Your task to perform on an android device: Is it going to rain this weekend? Image 0: 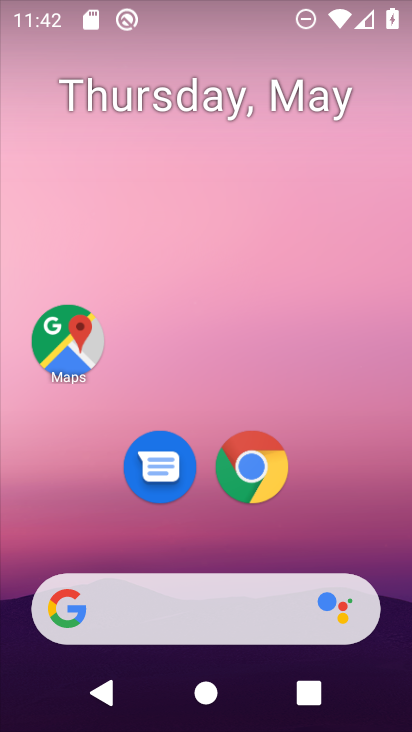
Step 0: drag from (238, 556) to (243, 196)
Your task to perform on an android device: Is it going to rain this weekend? Image 1: 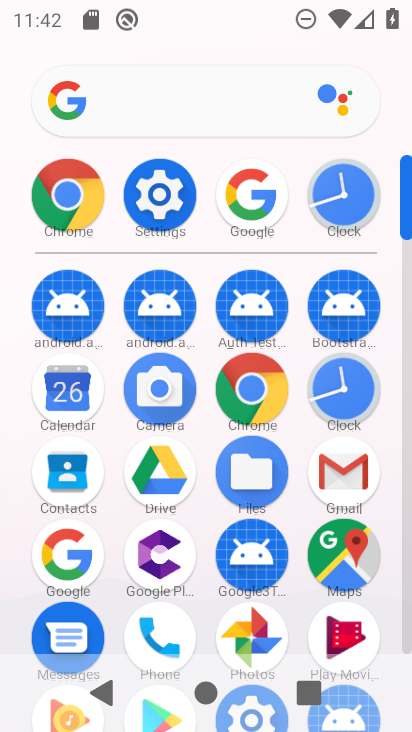
Step 1: drag from (211, 267) to (194, 86)
Your task to perform on an android device: Is it going to rain this weekend? Image 2: 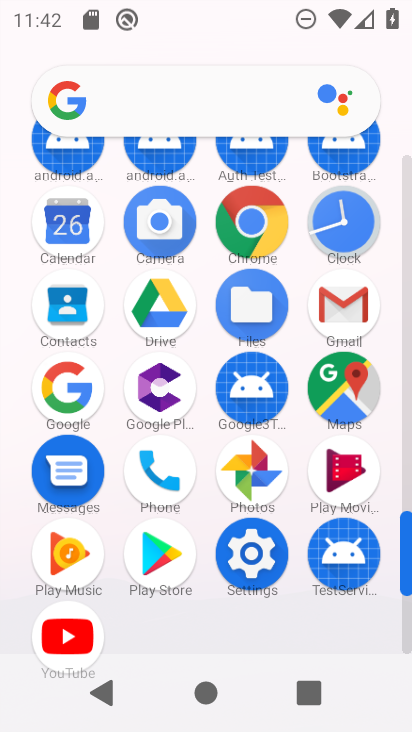
Step 2: click (100, 392)
Your task to perform on an android device: Is it going to rain this weekend? Image 3: 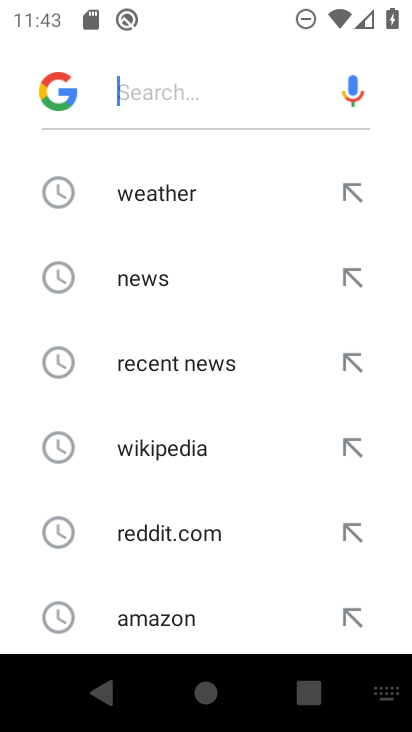
Step 3: drag from (203, 511) to (211, 227)
Your task to perform on an android device: Is it going to rain this weekend? Image 4: 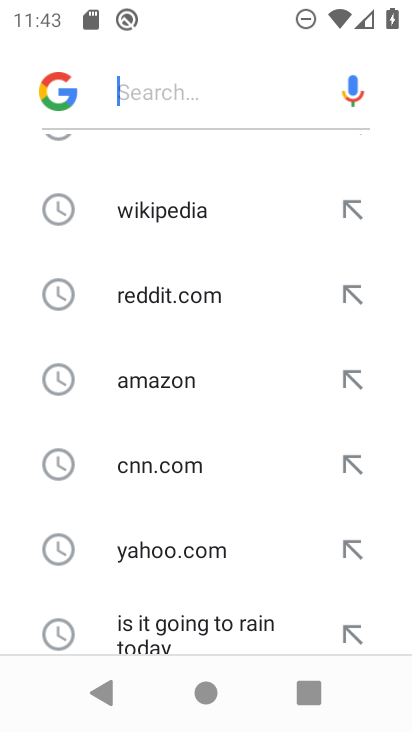
Step 4: press back button
Your task to perform on an android device: Is it going to rain this weekend? Image 5: 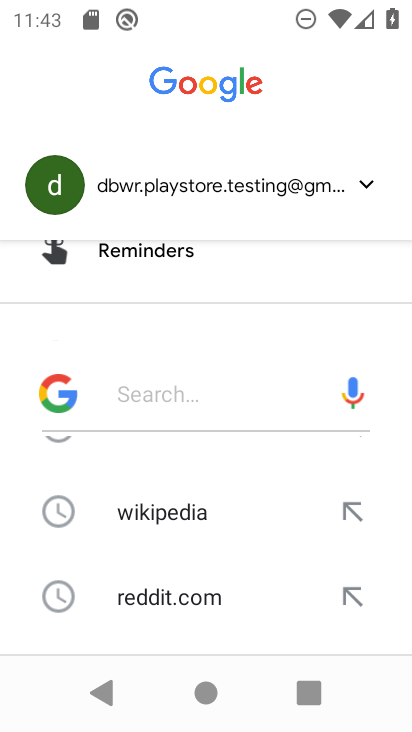
Step 5: drag from (180, 271) to (246, 654)
Your task to perform on an android device: Is it going to rain this weekend? Image 6: 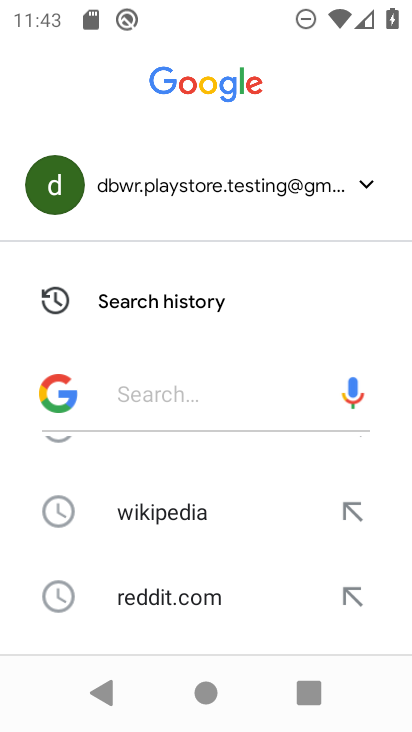
Step 6: press back button
Your task to perform on an android device: Is it going to rain this weekend? Image 7: 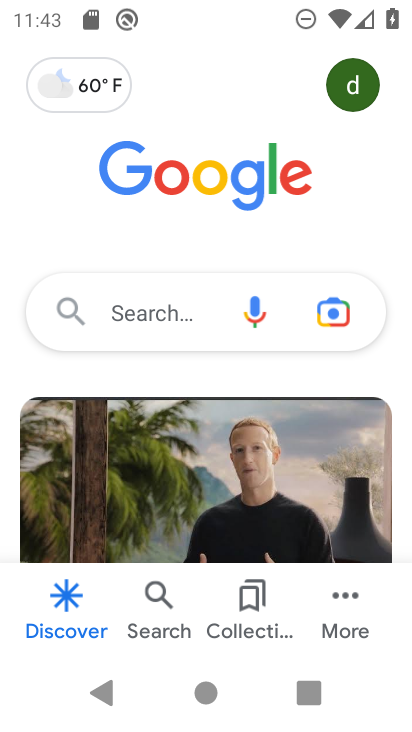
Step 7: click (64, 108)
Your task to perform on an android device: Is it going to rain this weekend? Image 8: 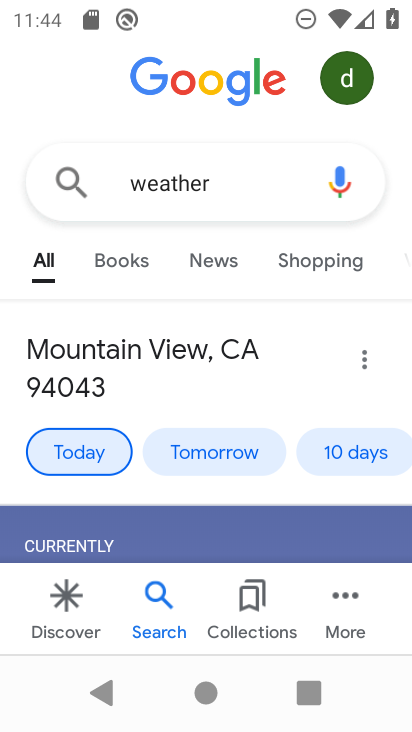
Step 8: click (330, 453)
Your task to perform on an android device: Is it going to rain this weekend? Image 9: 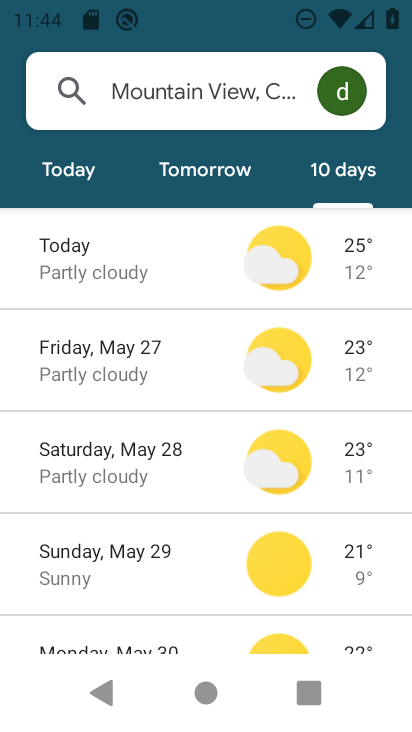
Step 9: task complete